Your task to perform on an android device: turn notification dots on Image 0: 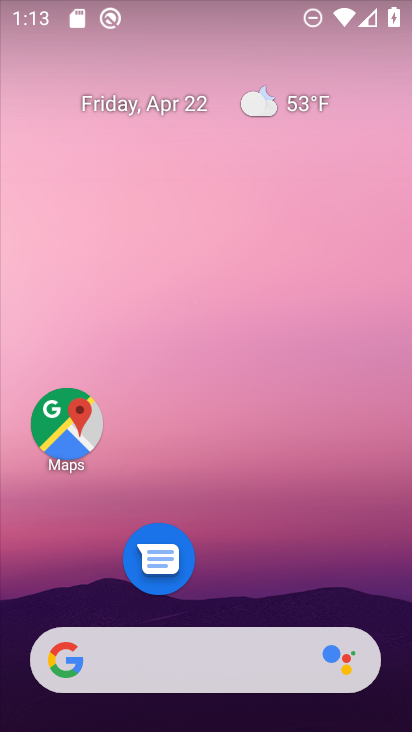
Step 0: drag from (234, 722) to (211, 244)
Your task to perform on an android device: turn notification dots on Image 1: 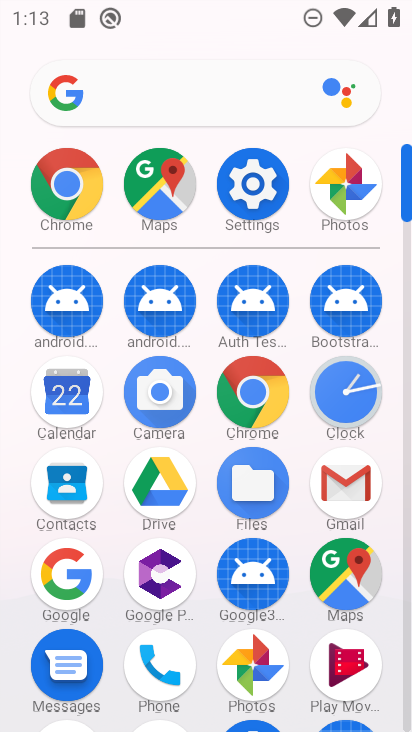
Step 1: click (249, 180)
Your task to perform on an android device: turn notification dots on Image 2: 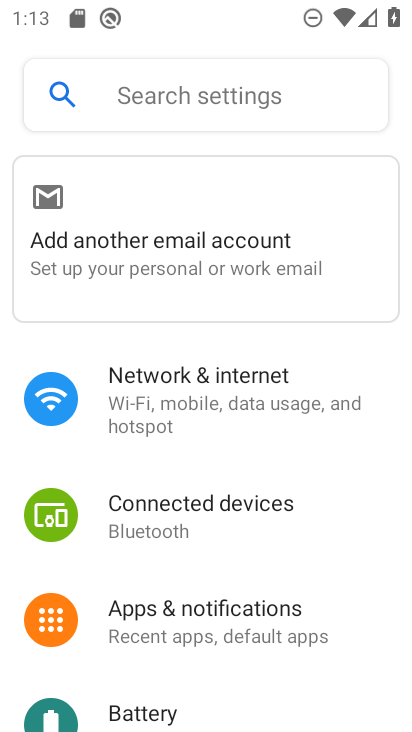
Step 2: click (218, 619)
Your task to perform on an android device: turn notification dots on Image 3: 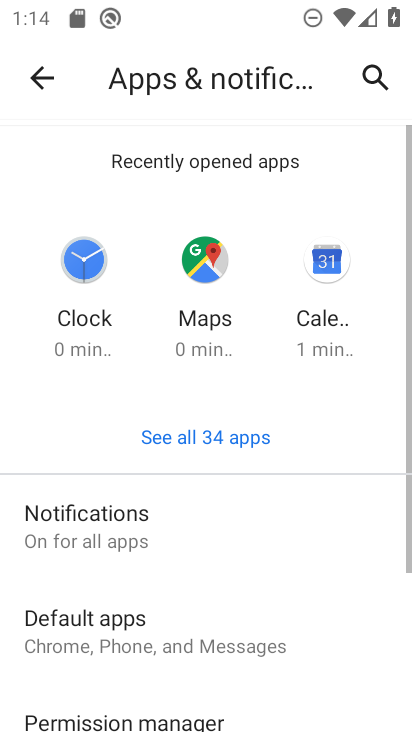
Step 3: click (77, 497)
Your task to perform on an android device: turn notification dots on Image 4: 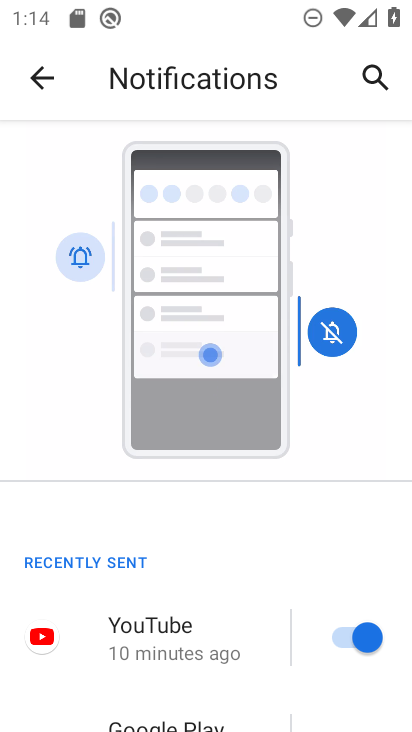
Step 4: drag from (233, 706) to (219, 364)
Your task to perform on an android device: turn notification dots on Image 5: 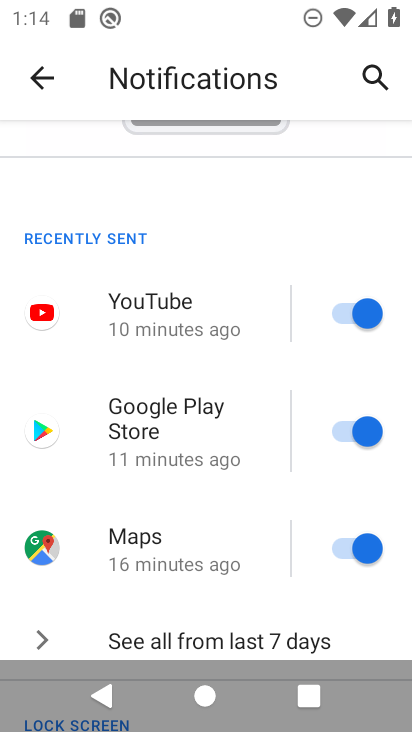
Step 5: drag from (236, 642) to (221, 323)
Your task to perform on an android device: turn notification dots on Image 6: 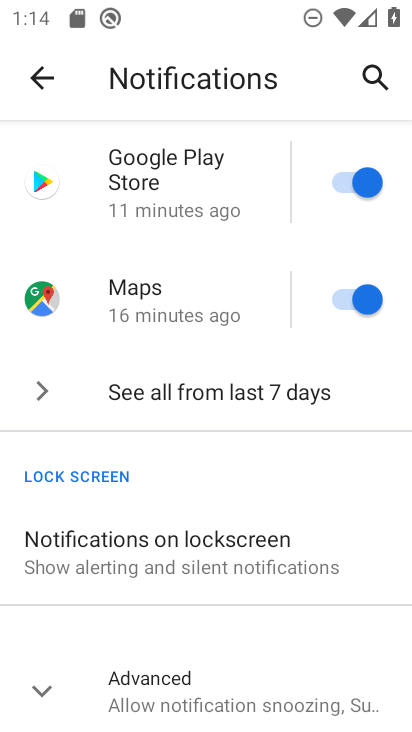
Step 6: drag from (243, 672) to (209, 362)
Your task to perform on an android device: turn notification dots on Image 7: 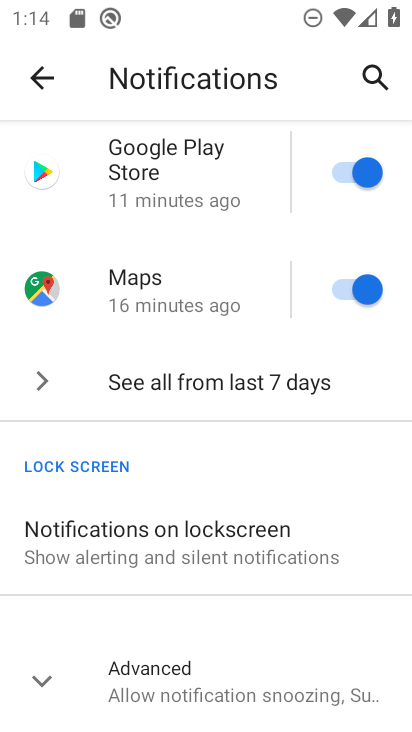
Step 7: click (214, 686)
Your task to perform on an android device: turn notification dots on Image 8: 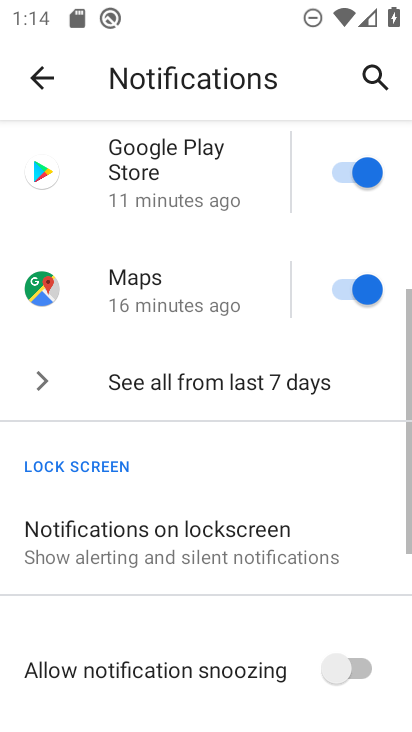
Step 8: drag from (253, 668) to (269, 322)
Your task to perform on an android device: turn notification dots on Image 9: 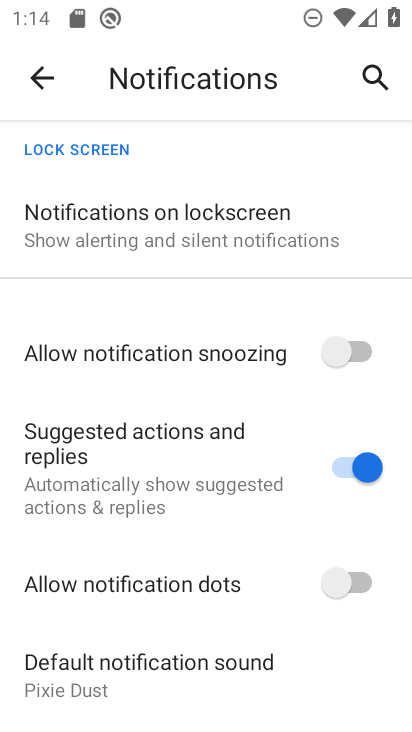
Step 9: click (356, 583)
Your task to perform on an android device: turn notification dots on Image 10: 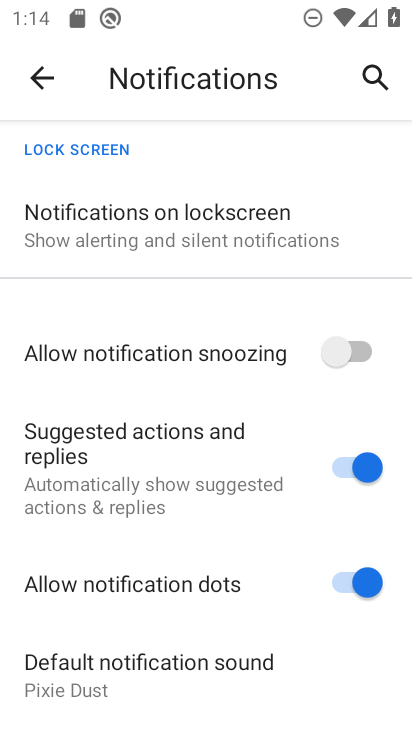
Step 10: task complete